Your task to perform on an android device: turn on wifi Image 0: 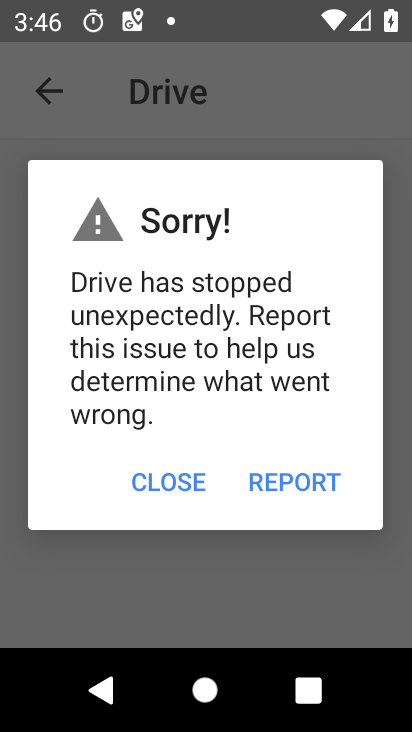
Step 0: press home button
Your task to perform on an android device: turn on wifi Image 1: 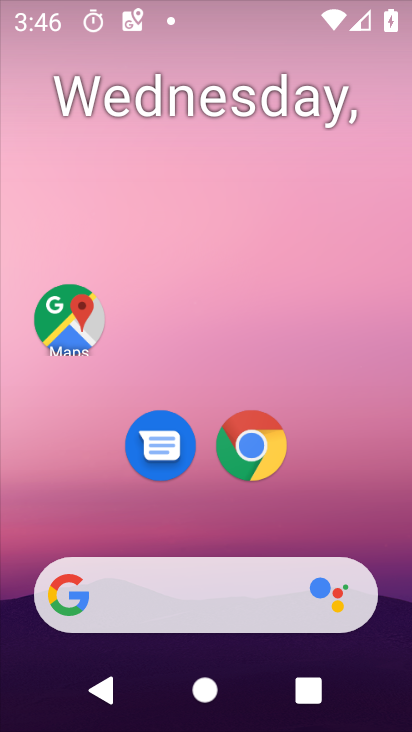
Step 1: drag from (212, 526) to (265, 39)
Your task to perform on an android device: turn on wifi Image 2: 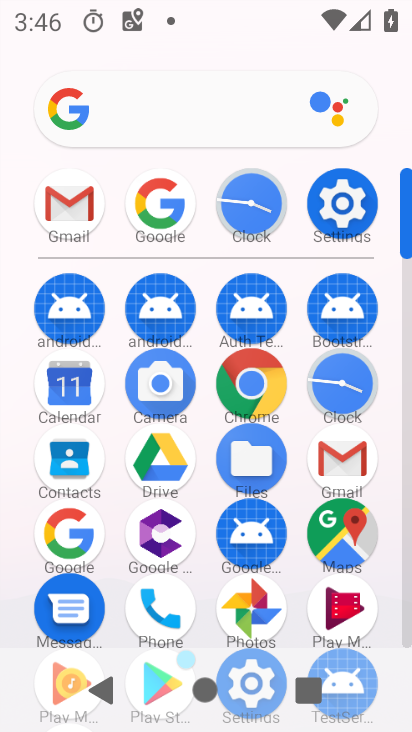
Step 2: click (333, 196)
Your task to perform on an android device: turn on wifi Image 3: 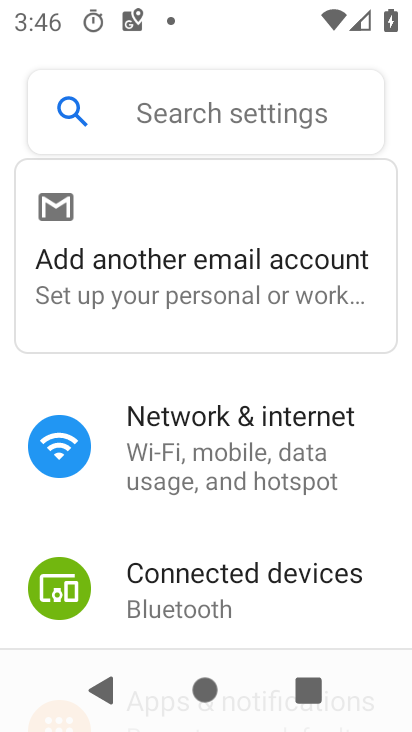
Step 3: click (193, 455)
Your task to perform on an android device: turn on wifi Image 4: 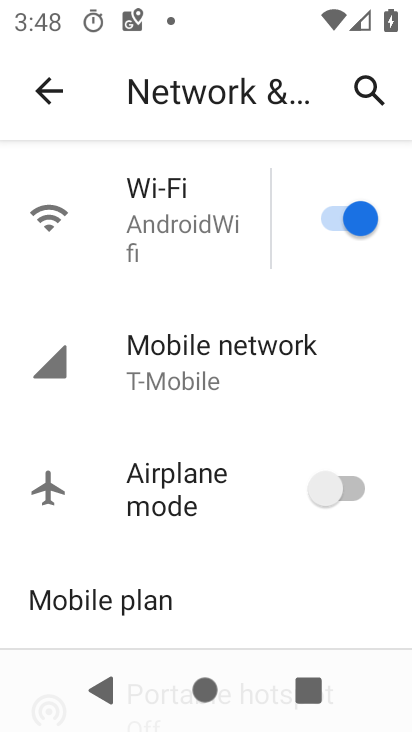
Step 4: task complete